Your task to perform on an android device: toggle sleep mode Image 0: 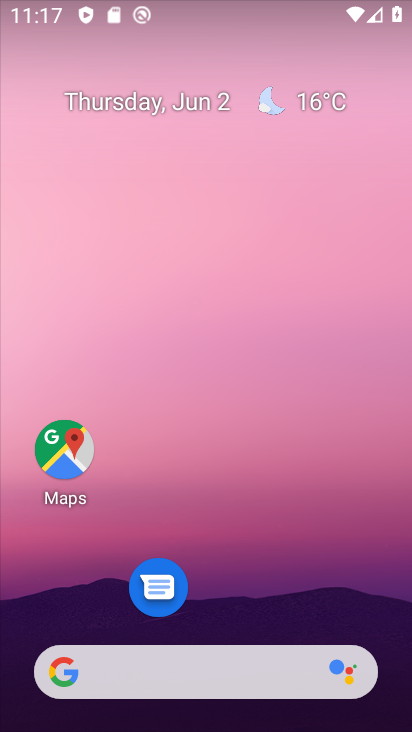
Step 0: drag from (225, 654) to (127, 52)
Your task to perform on an android device: toggle sleep mode Image 1: 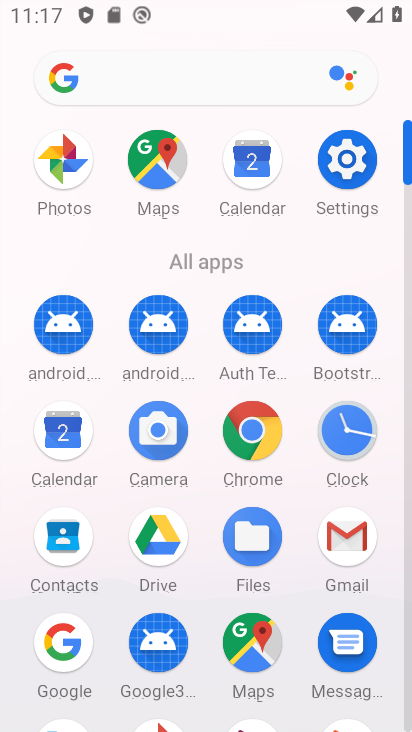
Step 1: click (363, 156)
Your task to perform on an android device: toggle sleep mode Image 2: 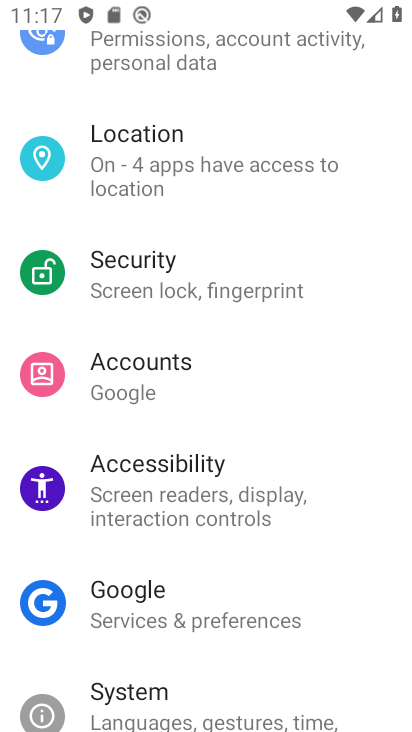
Step 2: task complete